Your task to perform on an android device: Search for pizza restaurants on Maps Image 0: 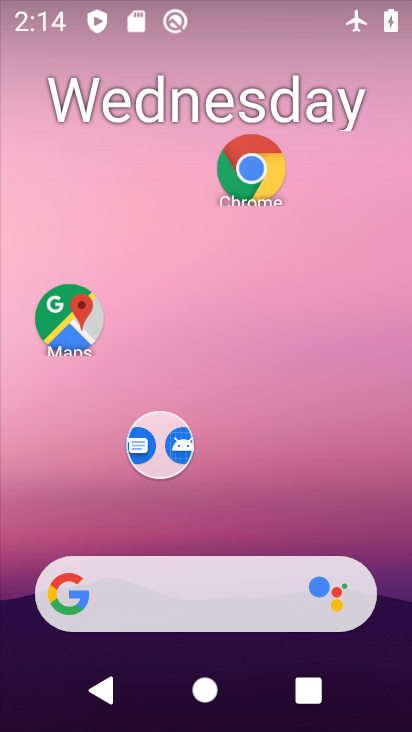
Step 0: drag from (183, 536) to (153, 14)
Your task to perform on an android device: Search for pizza restaurants on Maps Image 1: 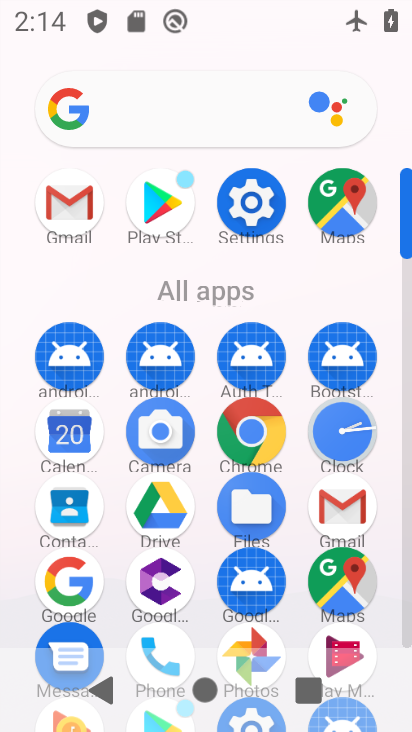
Step 1: click (340, 575)
Your task to perform on an android device: Search for pizza restaurants on Maps Image 2: 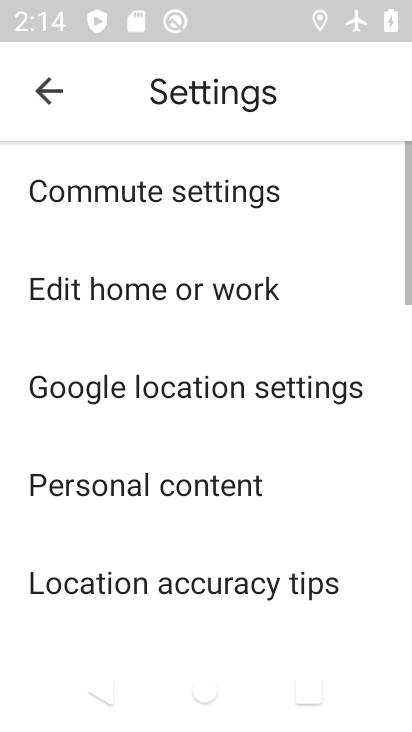
Step 2: click (44, 105)
Your task to perform on an android device: Search for pizza restaurants on Maps Image 3: 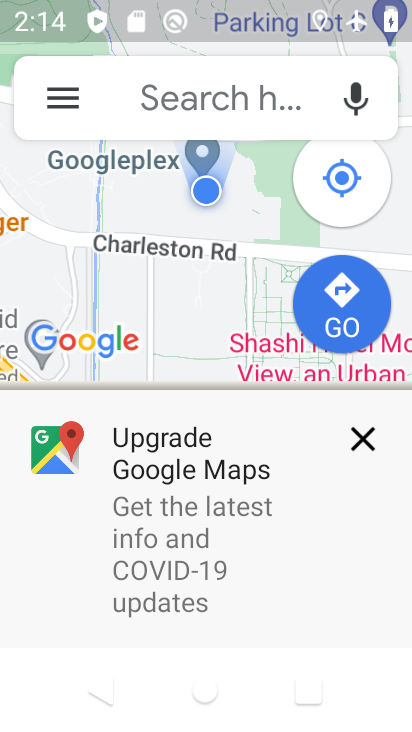
Step 3: click (188, 79)
Your task to perform on an android device: Search for pizza restaurants on Maps Image 4: 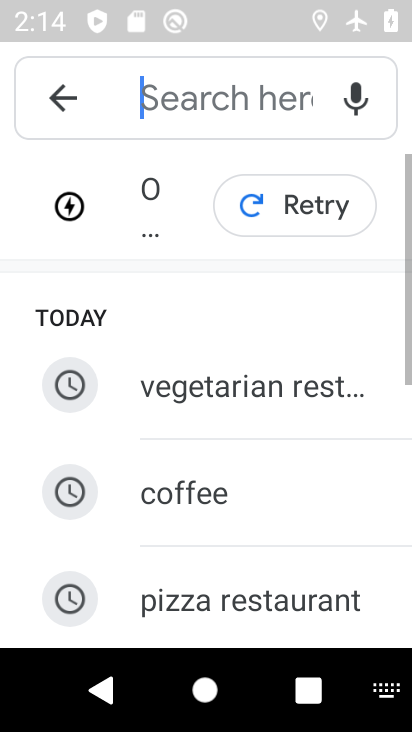
Step 4: task complete